Your task to perform on an android device: What's on my calendar tomorrow? Image 0: 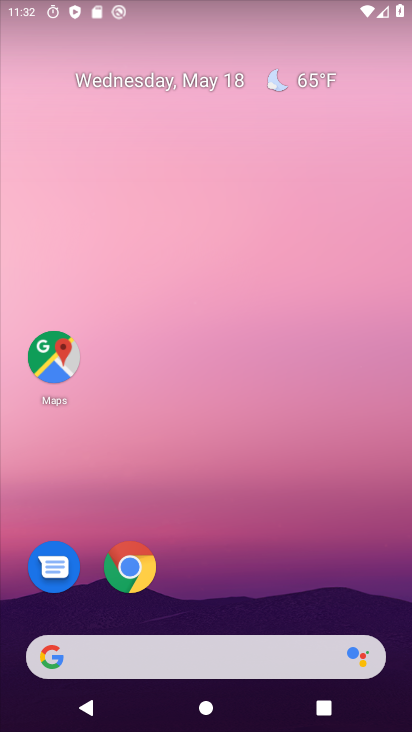
Step 0: click (194, 77)
Your task to perform on an android device: What's on my calendar tomorrow? Image 1: 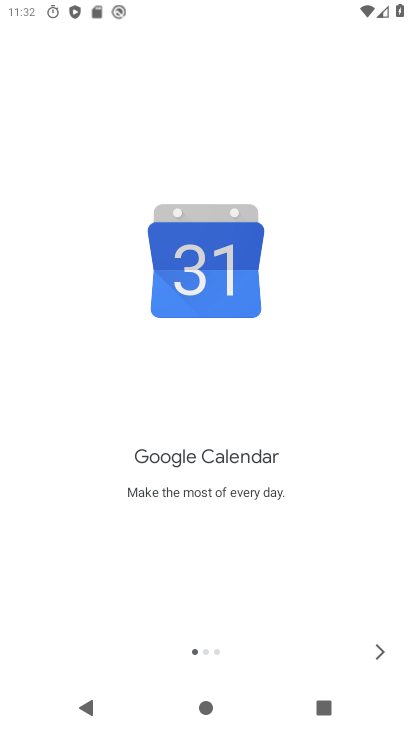
Step 1: click (375, 649)
Your task to perform on an android device: What's on my calendar tomorrow? Image 2: 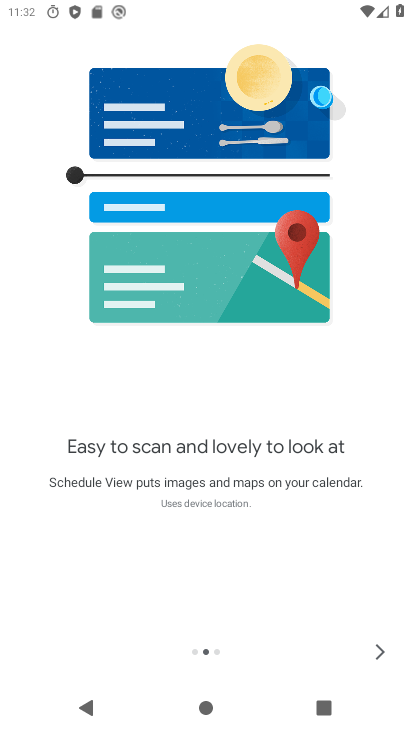
Step 2: click (375, 649)
Your task to perform on an android device: What's on my calendar tomorrow? Image 3: 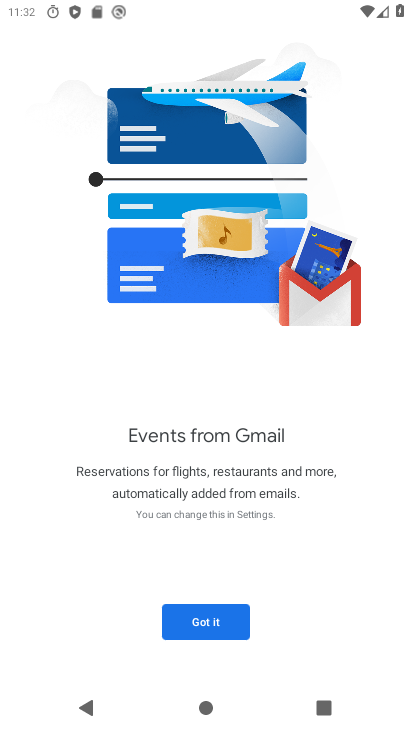
Step 3: click (206, 618)
Your task to perform on an android device: What's on my calendar tomorrow? Image 4: 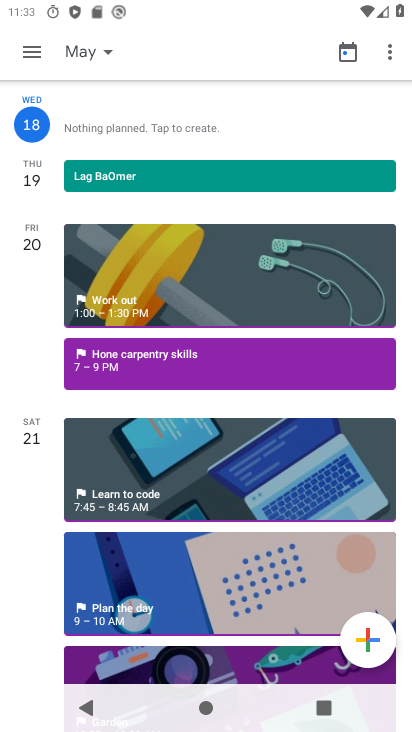
Step 4: task complete